Your task to perform on an android device: toggle notifications settings in the gmail app Image 0: 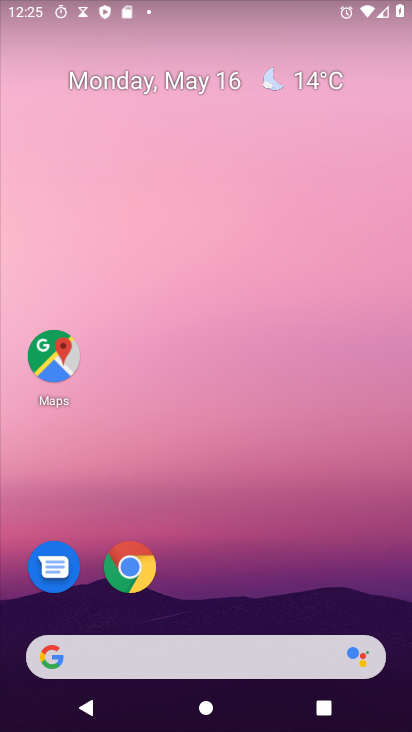
Step 0: drag from (241, 614) to (271, 32)
Your task to perform on an android device: toggle notifications settings in the gmail app Image 1: 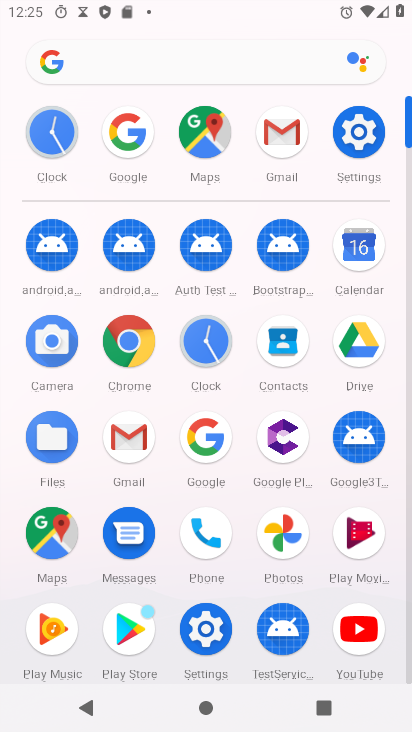
Step 1: click (277, 136)
Your task to perform on an android device: toggle notifications settings in the gmail app Image 2: 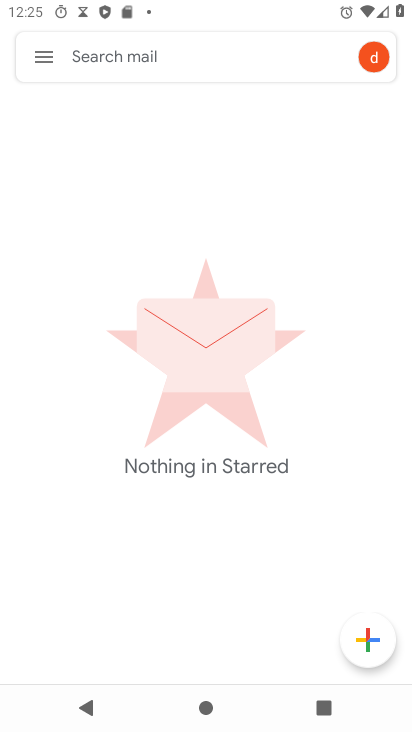
Step 2: click (36, 53)
Your task to perform on an android device: toggle notifications settings in the gmail app Image 3: 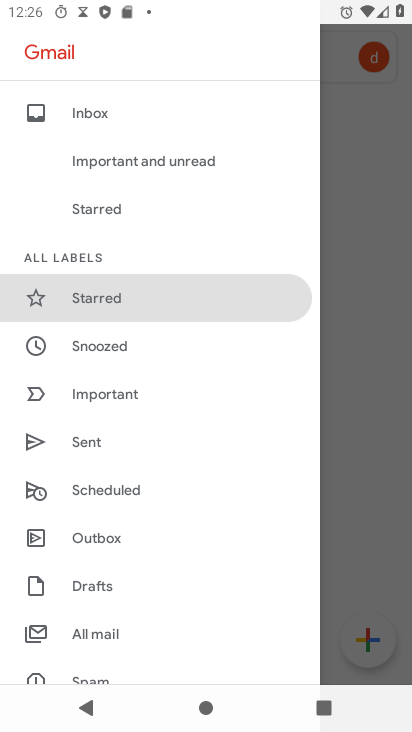
Step 3: drag from (145, 599) to (197, 371)
Your task to perform on an android device: toggle notifications settings in the gmail app Image 4: 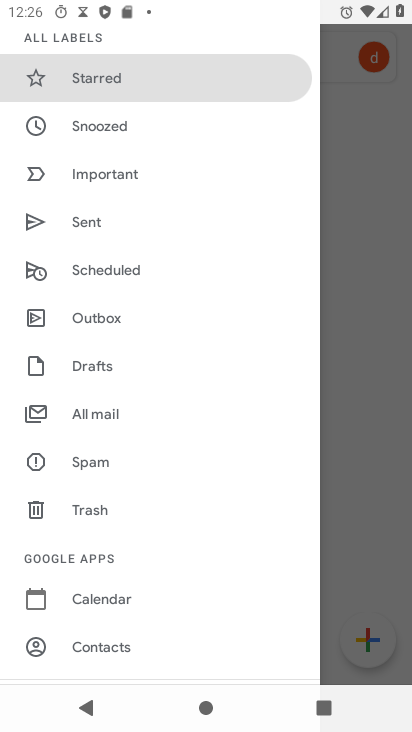
Step 4: drag from (189, 616) to (185, 366)
Your task to perform on an android device: toggle notifications settings in the gmail app Image 5: 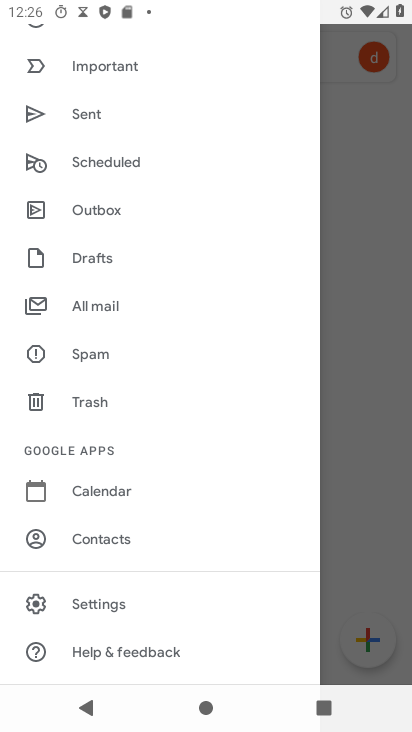
Step 5: click (106, 598)
Your task to perform on an android device: toggle notifications settings in the gmail app Image 6: 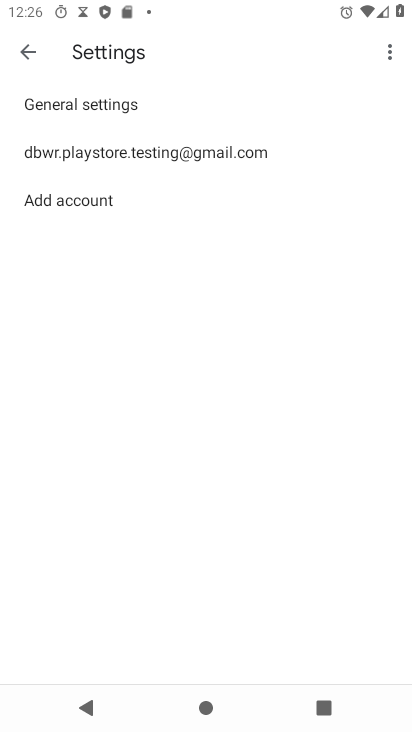
Step 6: click (230, 162)
Your task to perform on an android device: toggle notifications settings in the gmail app Image 7: 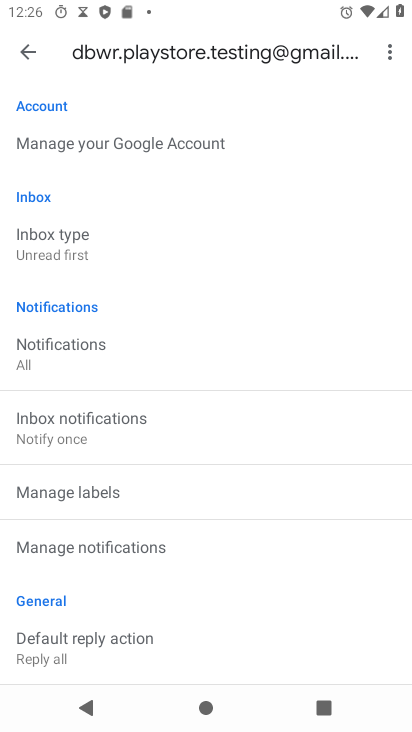
Step 7: click (81, 549)
Your task to perform on an android device: toggle notifications settings in the gmail app Image 8: 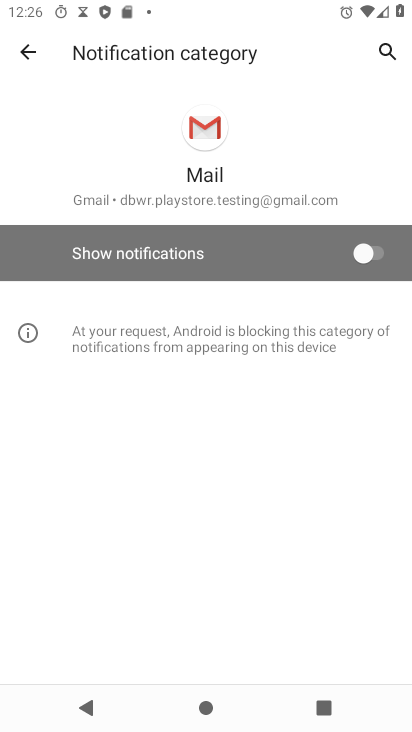
Step 8: click (367, 254)
Your task to perform on an android device: toggle notifications settings in the gmail app Image 9: 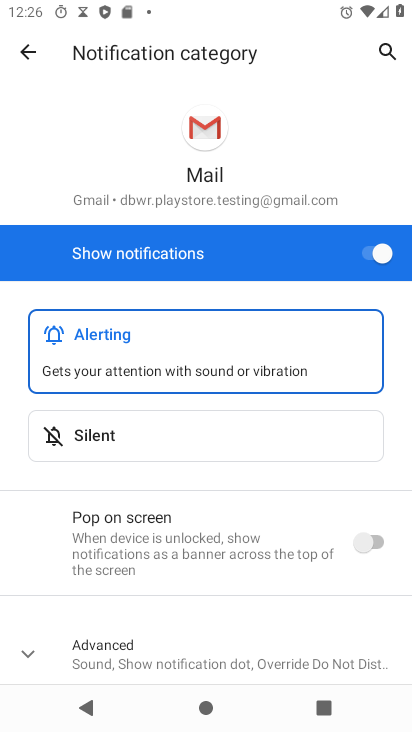
Step 9: task complete